Your task to perform on an android device: turn vacation reply on in the gmail app Image 0: 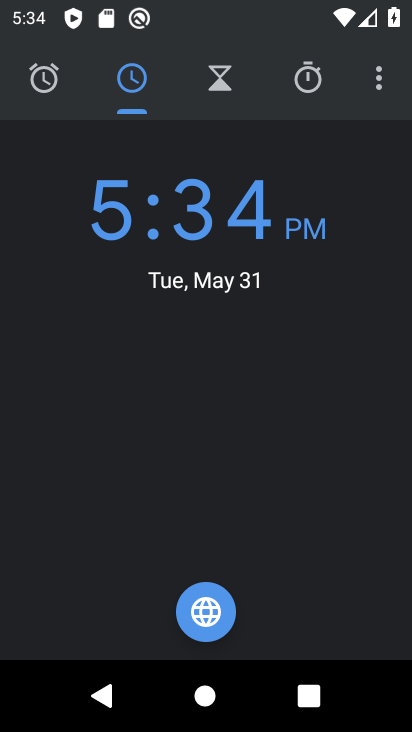
Step 0: press home button
Your task to perform on an android device: turn vacation reply on in the gmail app Image 1: 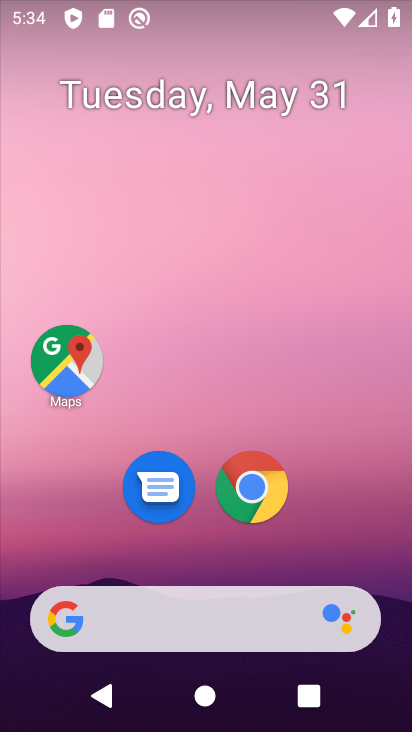
Step 1: drag from (352, 518) to (258, 151)
Your task to perform on an android device: turn vacation reply on in the gmail app Image 2: 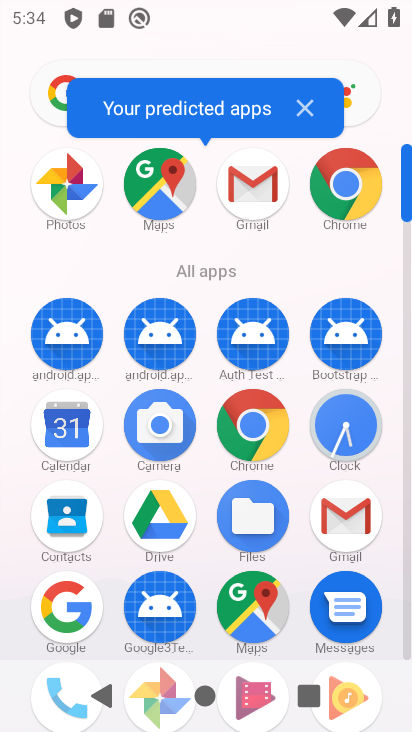
Step 2: click (242, 195)
Your task to perform on an android device: turn vacation reply on in the gmail app Image 3: 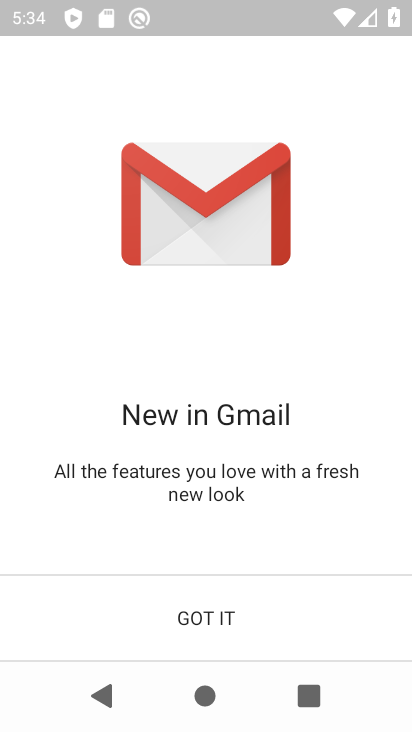
Step 3: click (206, 611)
Your task to perform on an android device: turn vacation reply on in the gmail app Image 4: 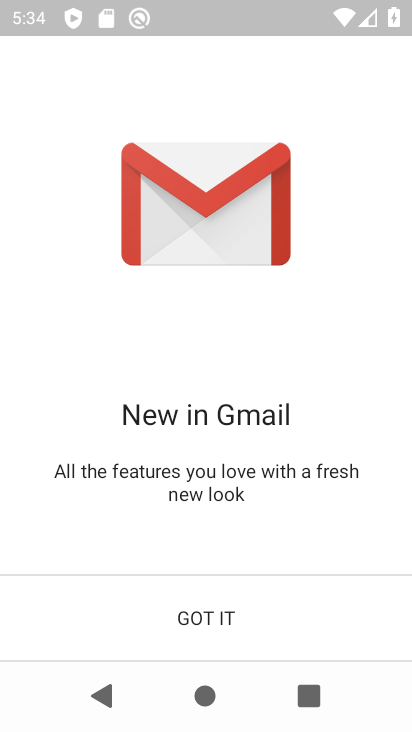
Step 4: click (206, 611)
Your task to perform on an android device: turn vacation reply on in the gmail app Image 5: 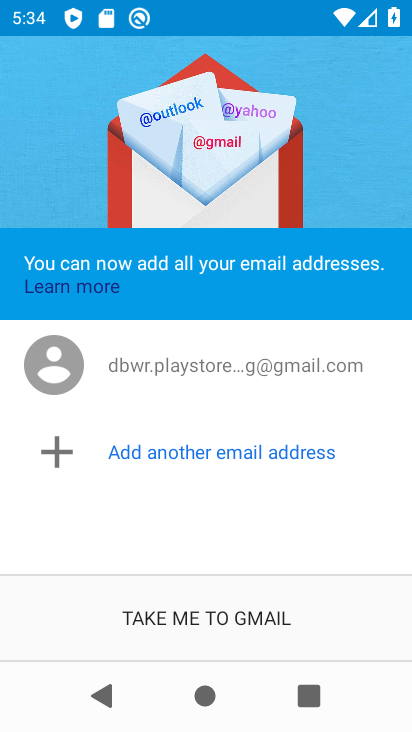
Step 5: click (206, 611)
Your task to perform on an android device: turn vacation reply on in the gmail app Image 6: 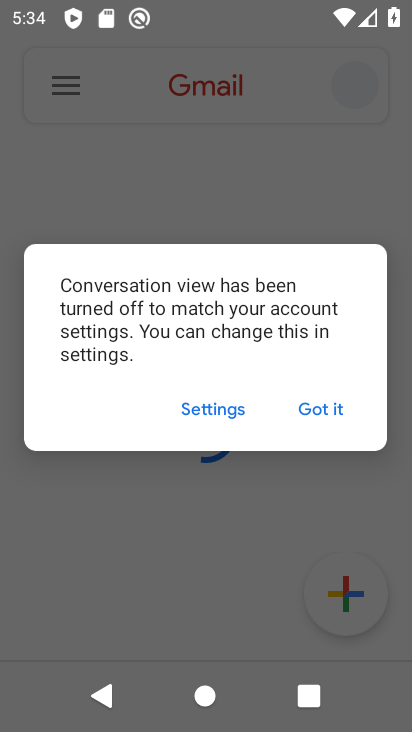
Step 6: click (314, 401)
Your task to perform on an android device: turn vacation reply on in the gmail app Image 7: 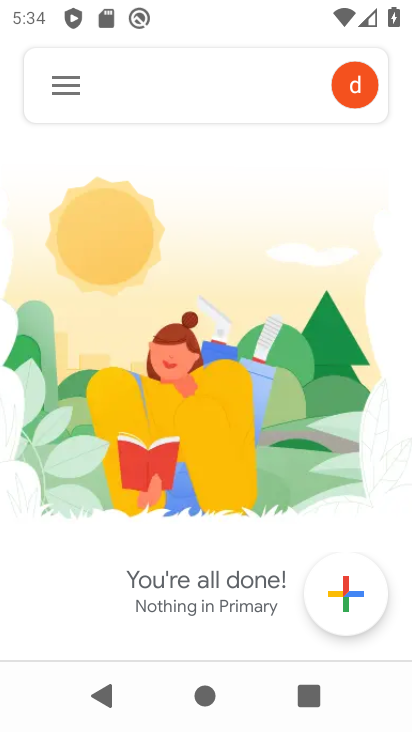
Step 7: click (61, 77)
Your task to perform on an android device: turn vacation reply on in the gmail app Image 8: 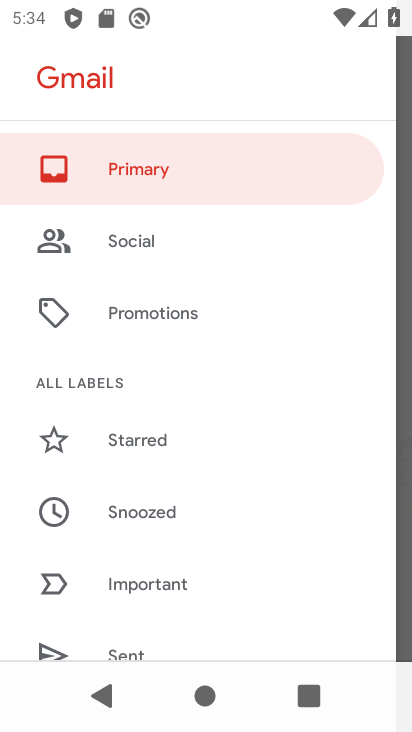
Step 8: drag from (257, 635) to (218, 134)
Your task to perform on an android device: turn vacation reply on in the gmail app Image 9: 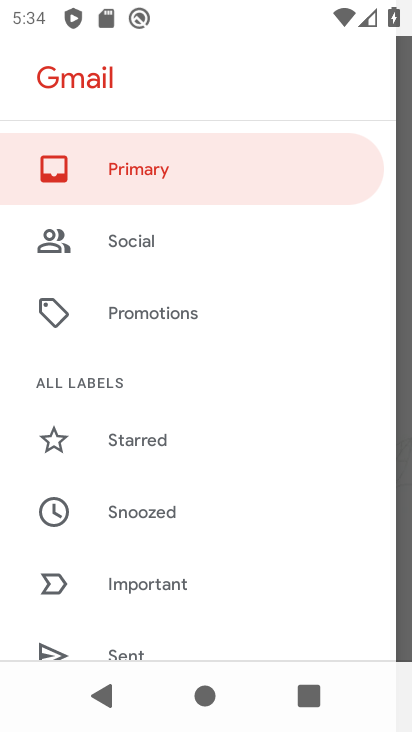
Step 9: drag from (210, 512) to (210, 165)
Your task to perform on an android device: turn vacation reply on in the gmail app Image 10: 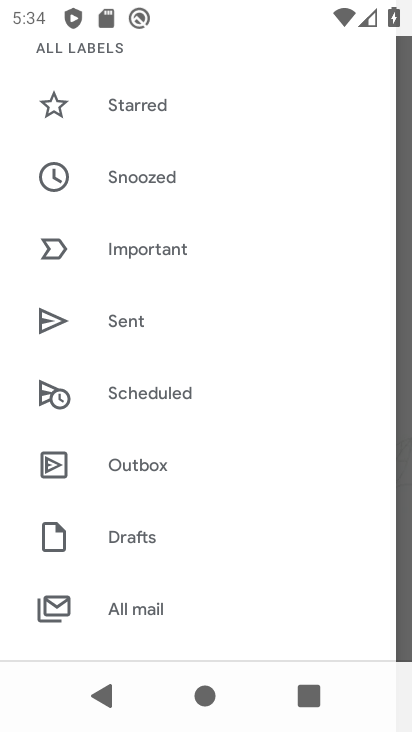
Step 10: drag from (219, 453) to (203, 187)
Your task to perform on an android device: turn vacation reply on in the gmail app Image 11: 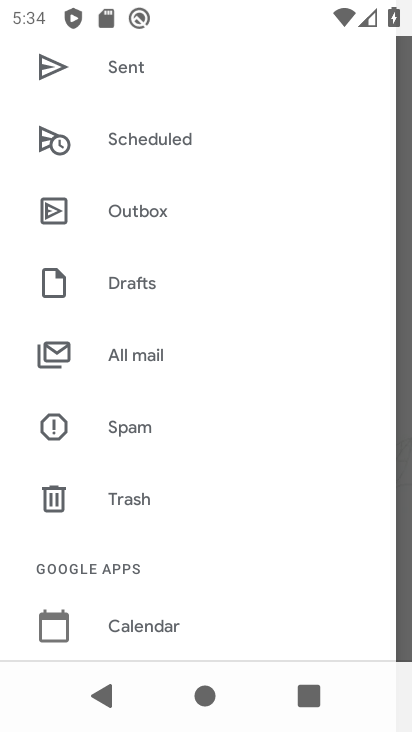
Step 11: drag from (222, 494) to (215, 154)
Your task to perform on an android device: turn vacation reply on in the gmail app Image 12: 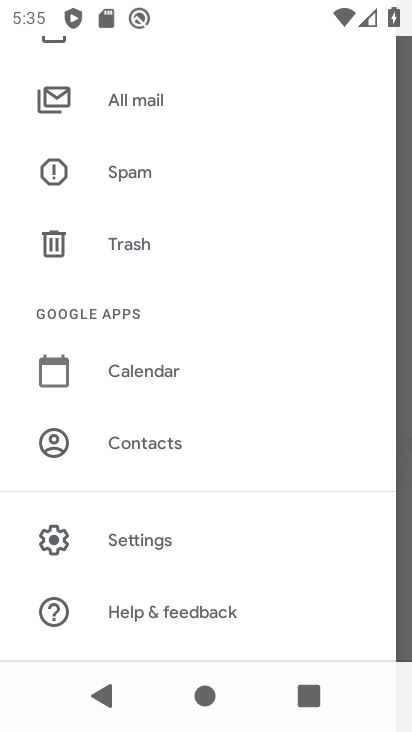
Step 12: click (120, 544)
Your task to perform on an android device: turn vacation reply on in the gmail app Image 13: 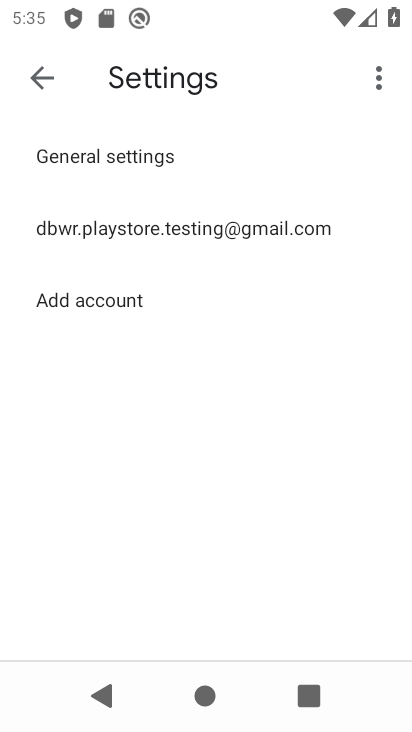
Step 13: click (112, 226)
Your task to perform on an android device: turn vacation reply on in the gmail app Image 14: 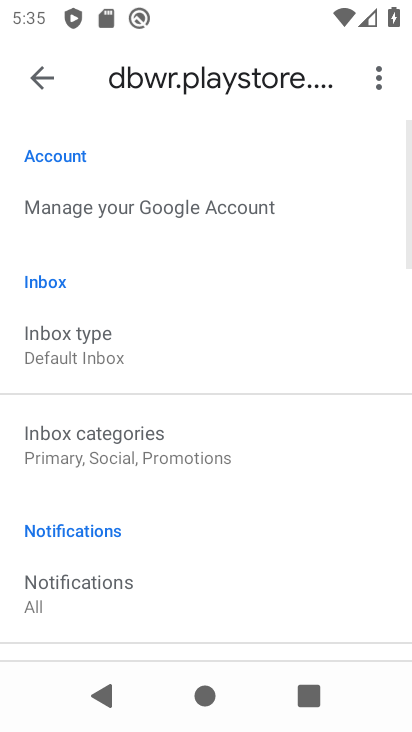
Step 14: drag from (262, 517) to (238, 218)
Your task to perform on an android device: turn vacation reply on in the gmail app Image 15: 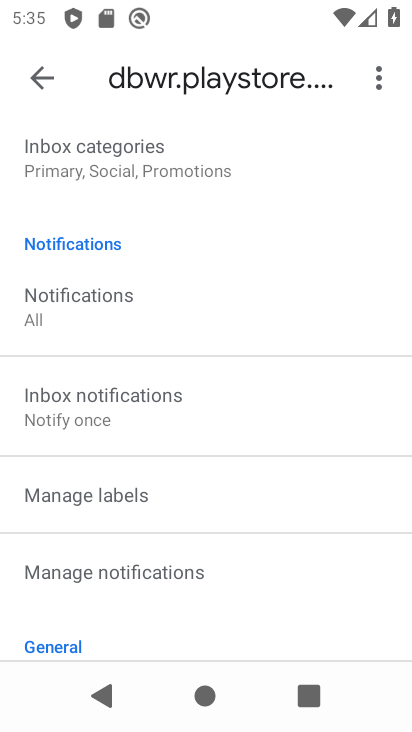
Step 15: drag from (240, 479) to (220, 129)
Your task to perform on an android device: turn vacation reply on in the gmail app Image 16: 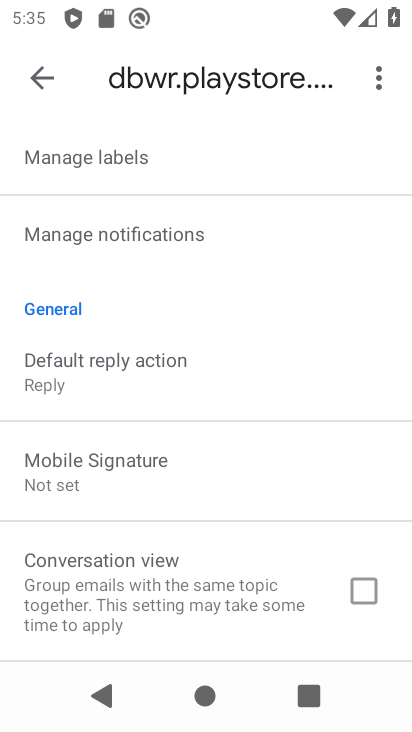
Step 16: drag from (228, 506) to (199, 173)
Your task to perform on an android device: turn vacation reply on in the gmail app Image 17: 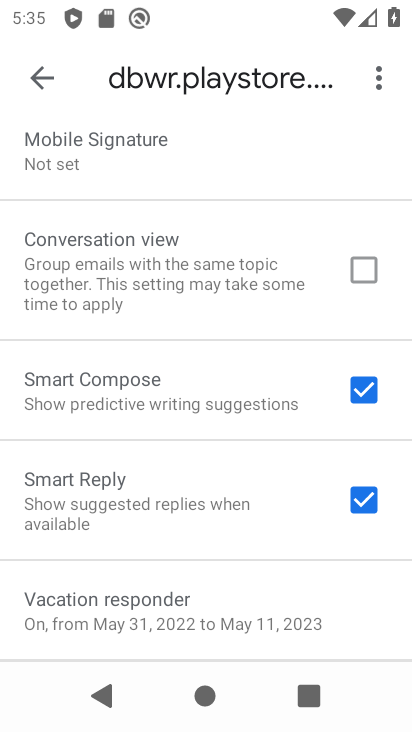
Step 17: click (162, 599)
Your task to perform on an android device: turn vacation reply on in the gmail app Image 18: 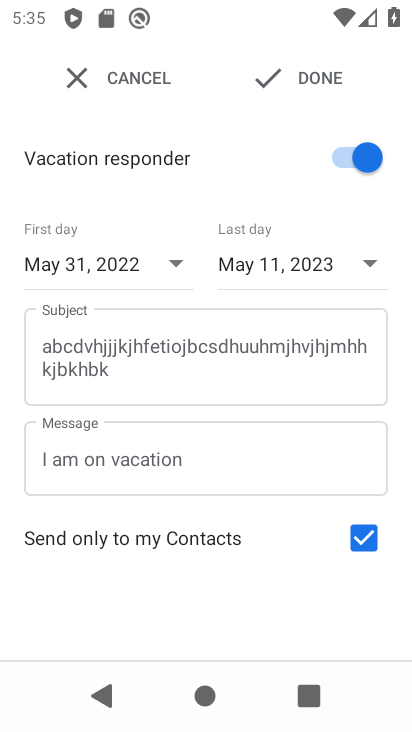
Step 18: task complete